Your task to perform on an android device: What's on my calendar tomorrow? Image 0: 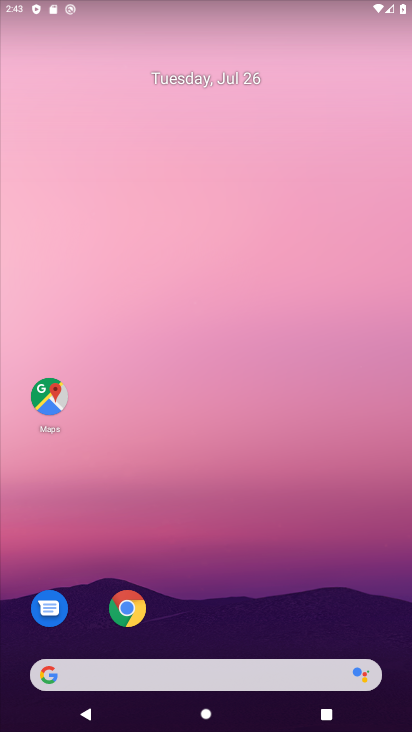
Step 0: drag from (228, 635) to (349, 7)
Your task to perform on an android device: What's on my calendar tomorrow? Image 1: 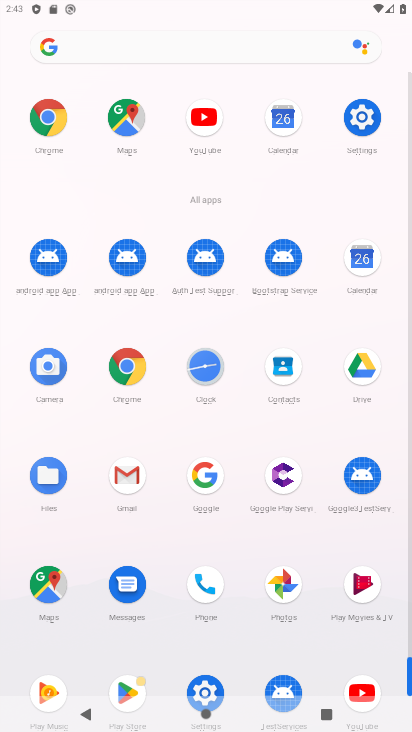
Step 1: click (362, 256)
Your task to perform on an android device: What's on my calendar tomorrow? Image 2: 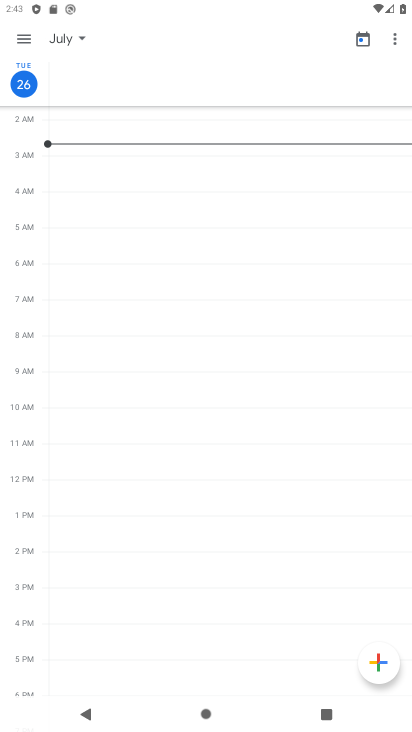
Step 2: click (26, 35)
Your task to perform on an android device: What's on my calendar tomorrow? Image 3: 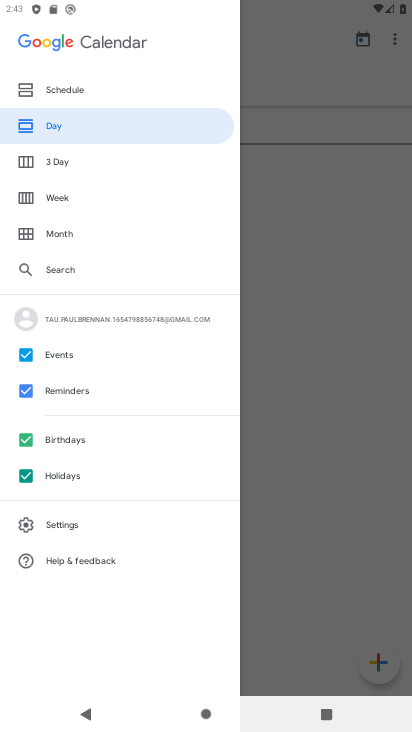
Step 3: click (65, 159)
Your task to perform on an android device: What's on my calendar tomorrow? Image 4: 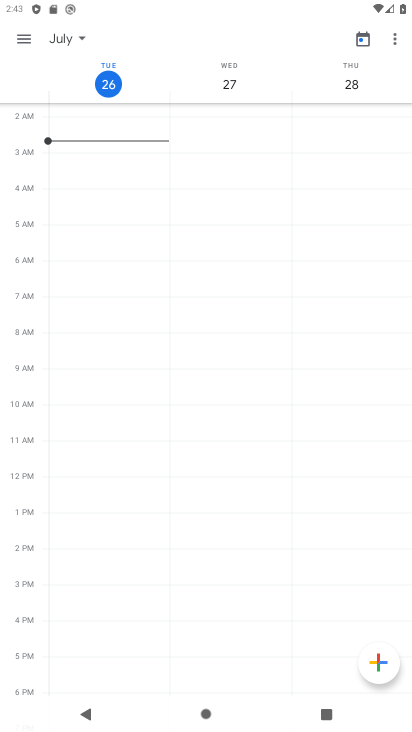
Step 4: click (228, 88)
Your task to perform on an android device: What's on my calendar tomorrow? Image 5: 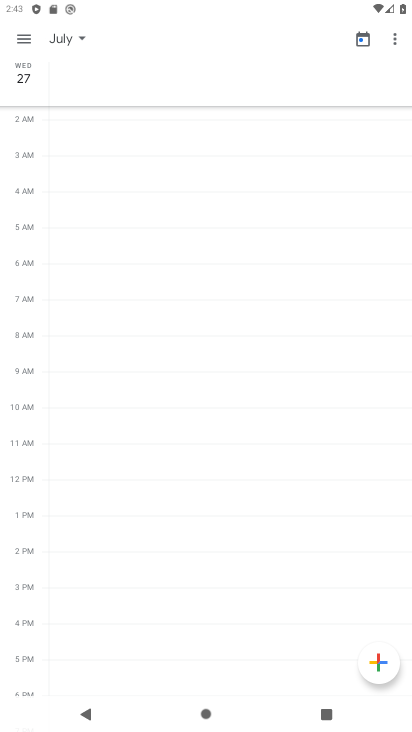
Step 5: task complete